Your task to perform on an android device: turn off translation in the chrome app Image 0: 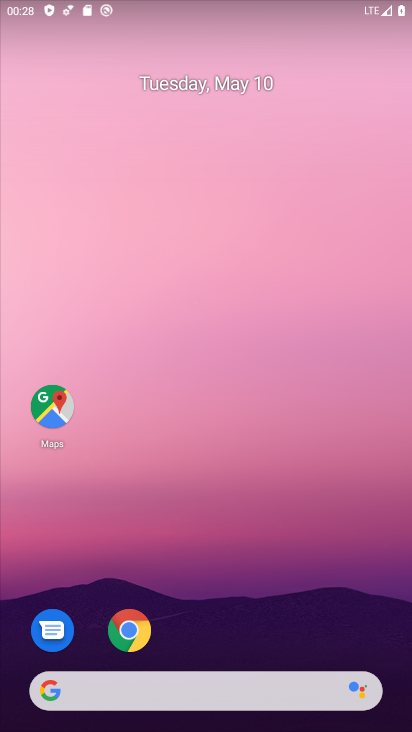
Step 0: click (128, 632)
Your task to perform on an android device: turn off translation in the chrome app Image 1: 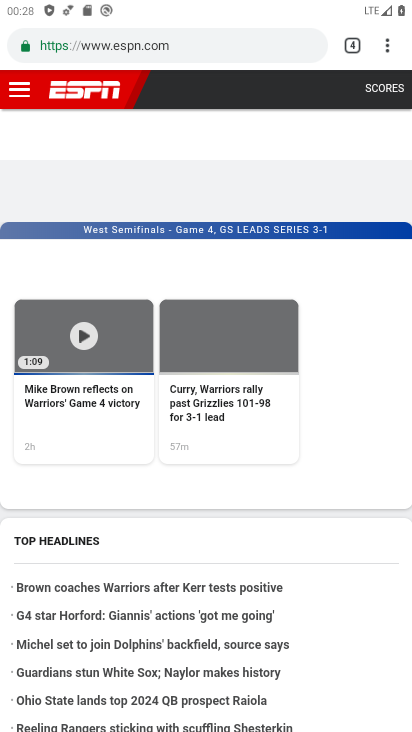
Step 1: click (388, 52)
Your task to perform on an android device: turn off translation in the chrome app Image 2: 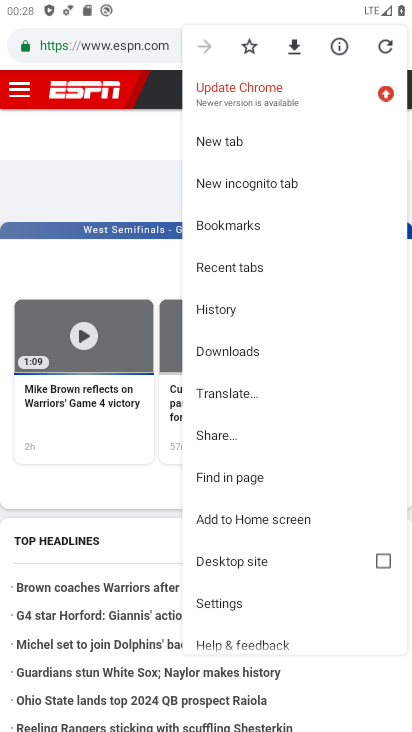
Step 2: click (224, 600)
Your task to perform on an android device: turn off translation in the chrome app Image 3: 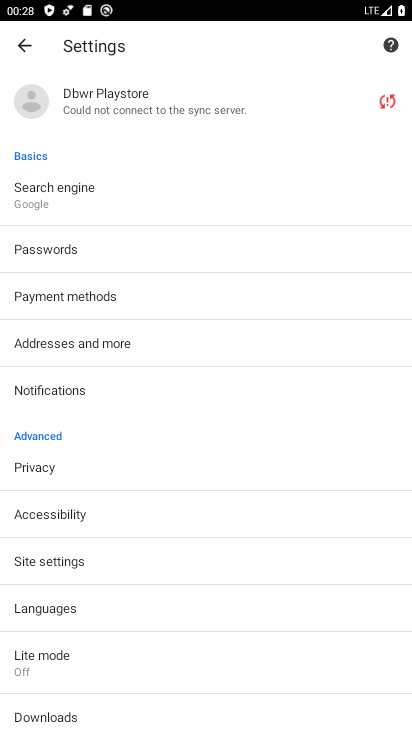
Step 3: click (54, 608)
Your task to perform on an android device: turn off translation in the chrome app Image 4: 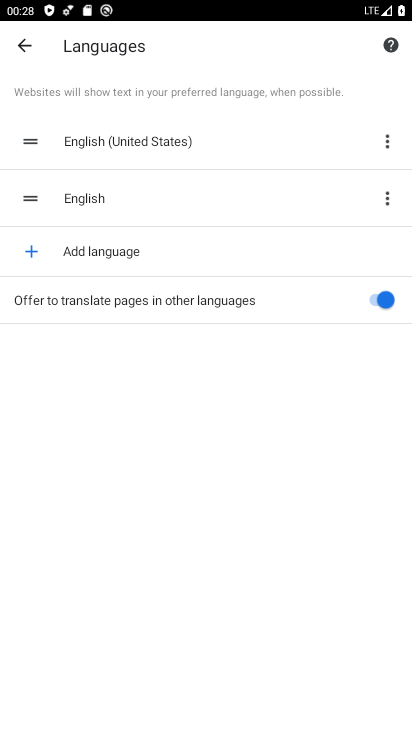
Step 4: click (372, 301)
Your task to perform on an android device: turn off translation in the chrome app Image 5: 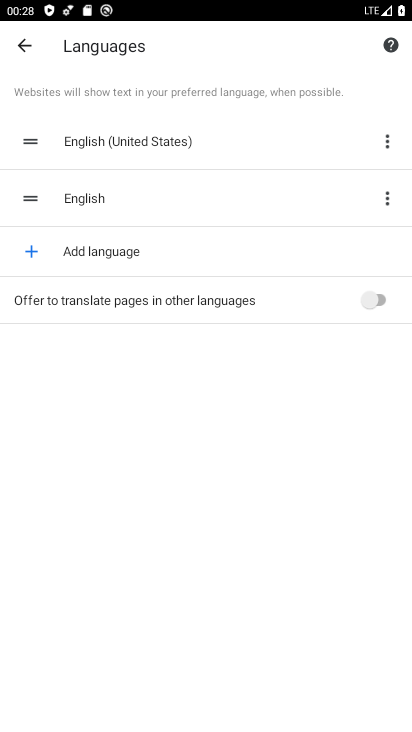
Step 5: task complete